Your task to perform on an android device: open app "Venmo" (install if not already installed), go to login, and select forgot password Image 0: 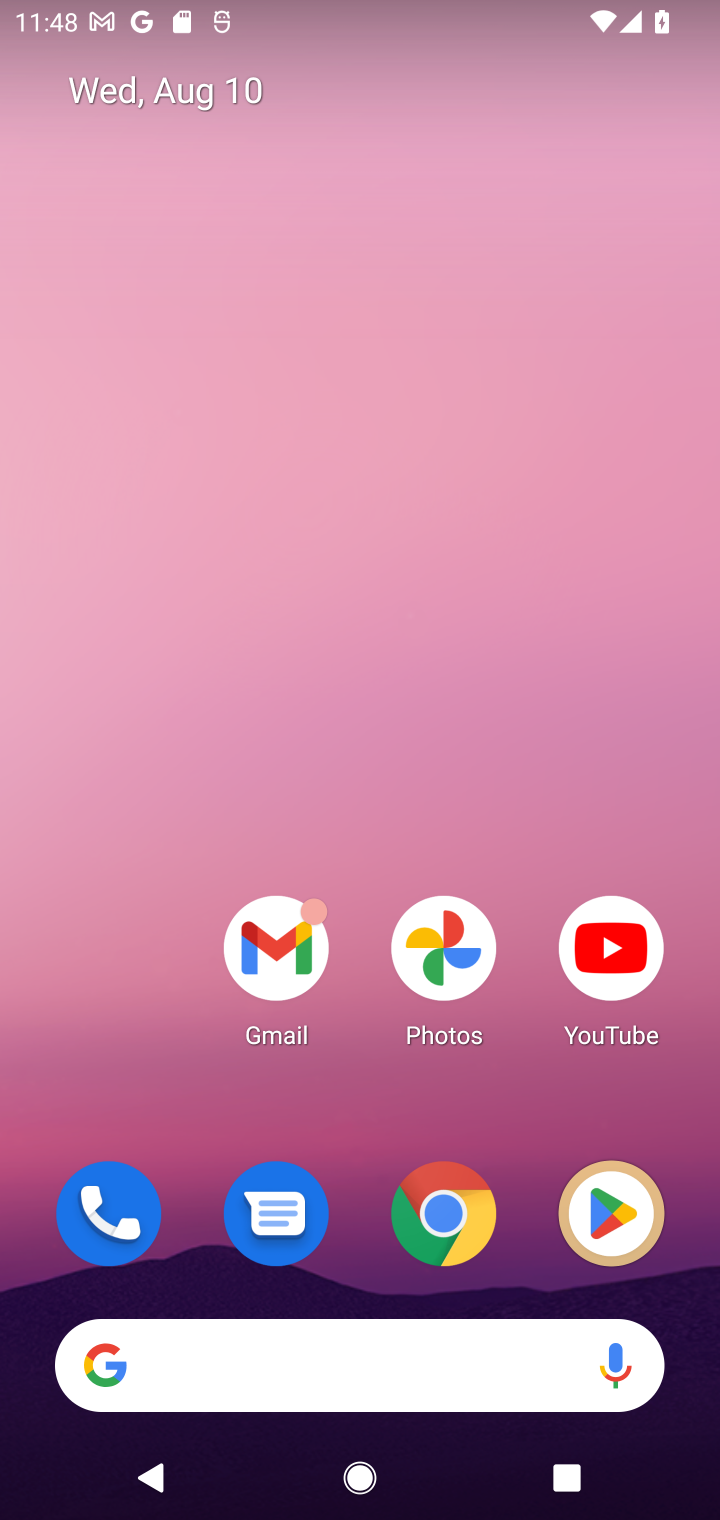
Step 0: drag from (248, 1395) to (536, 240)
Your task to perform on an android device: open app "Venmo" (install if not already installed), go to login, and select forgot password Image 1: 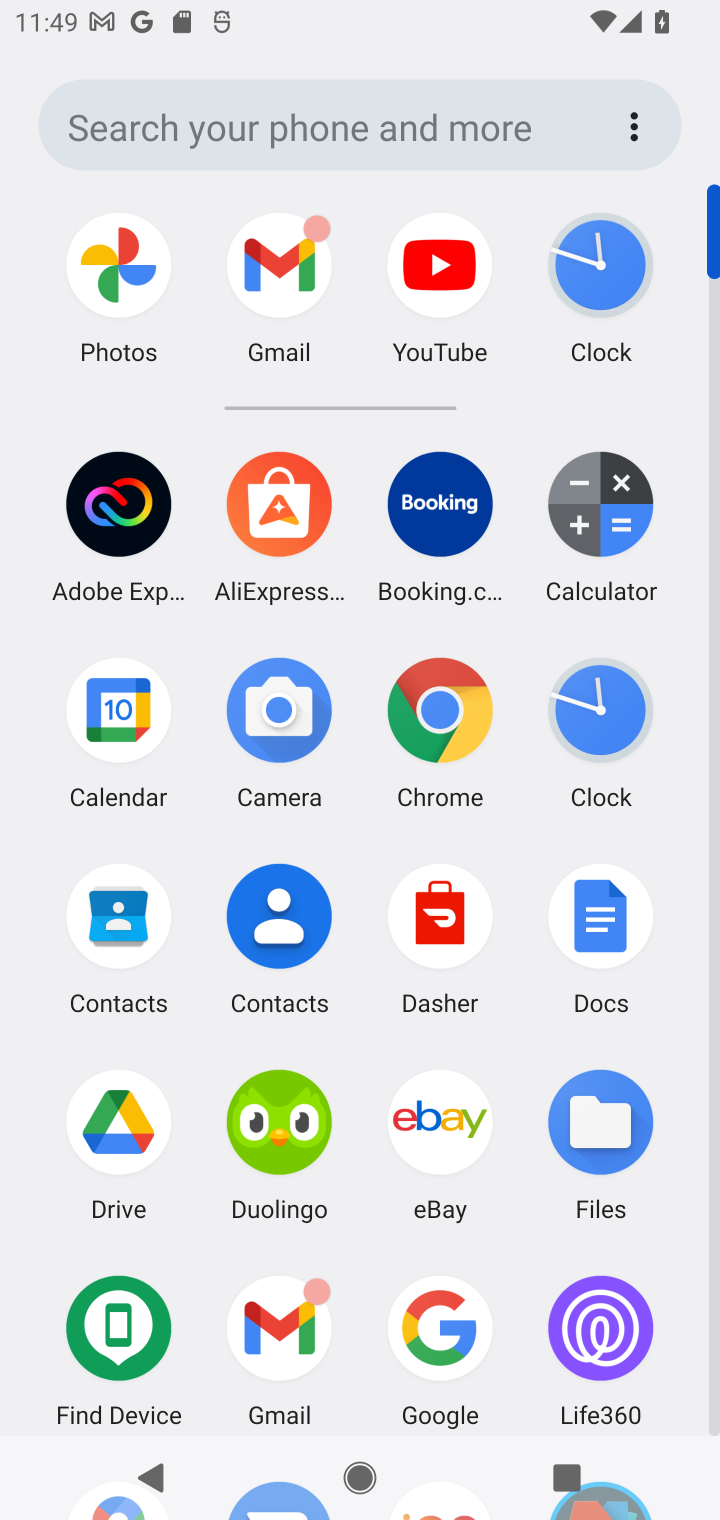
Step 1: drag from (364, 1180) to (394, 769)
Your task to perform on an android device: open app "Venmo" (install if not already installed), go to login, and select forgot password Image 2: 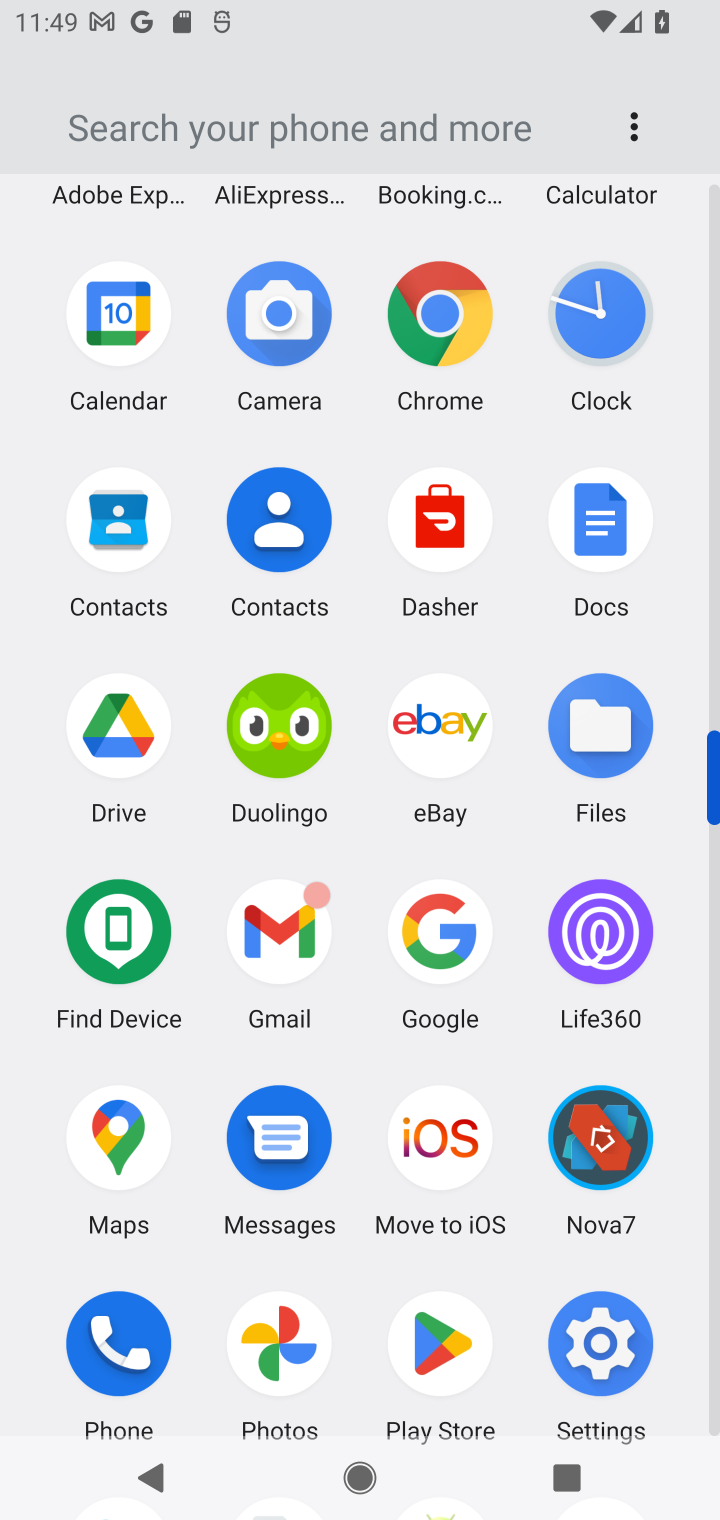
Step 2: click (439, 1341)
Your task to perform on an android device: open app "Venmo" (install if not already installed), go to login, and select forgot password Image 3: 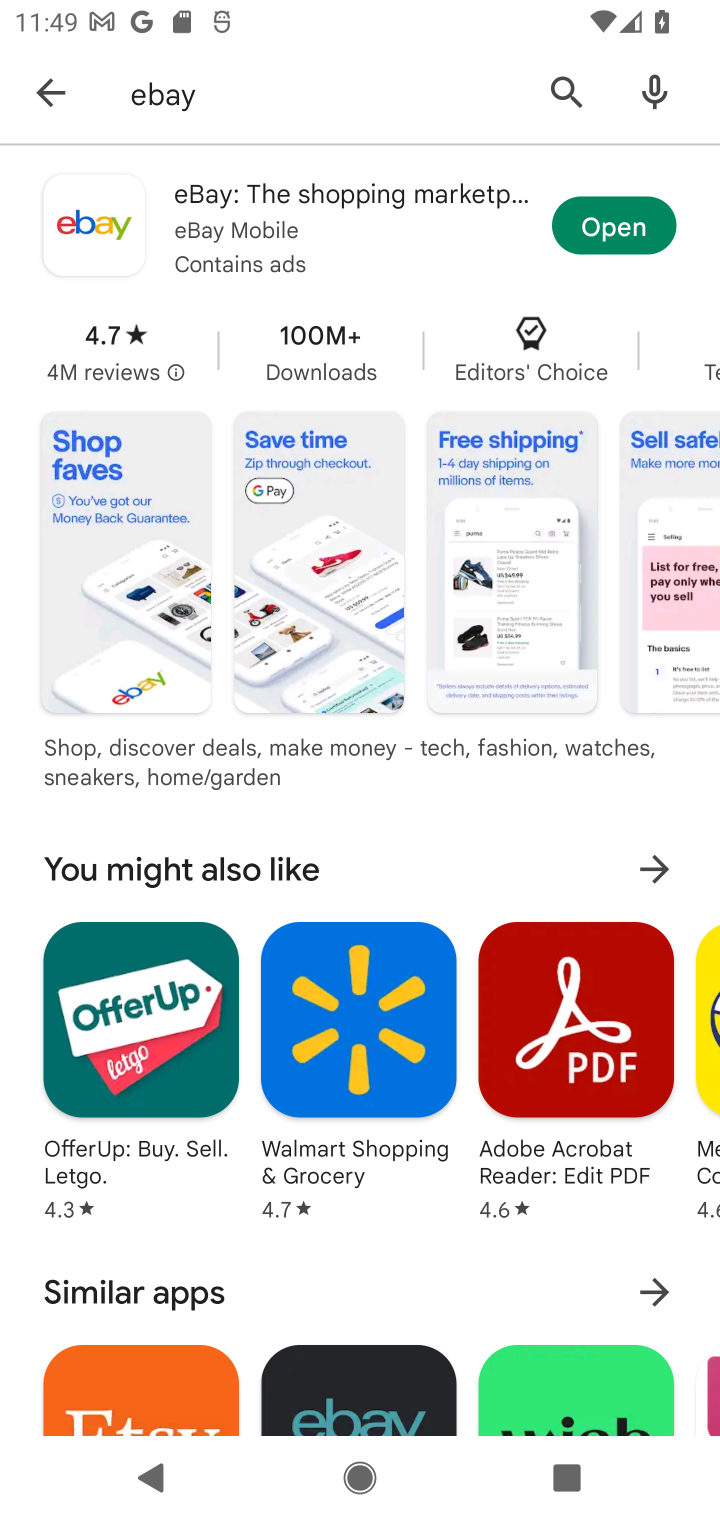
Step 3: press back button
Your task to perform on an android device: open app "Venmo" (install if not already installed), go to login, and select forgot password Image 4: 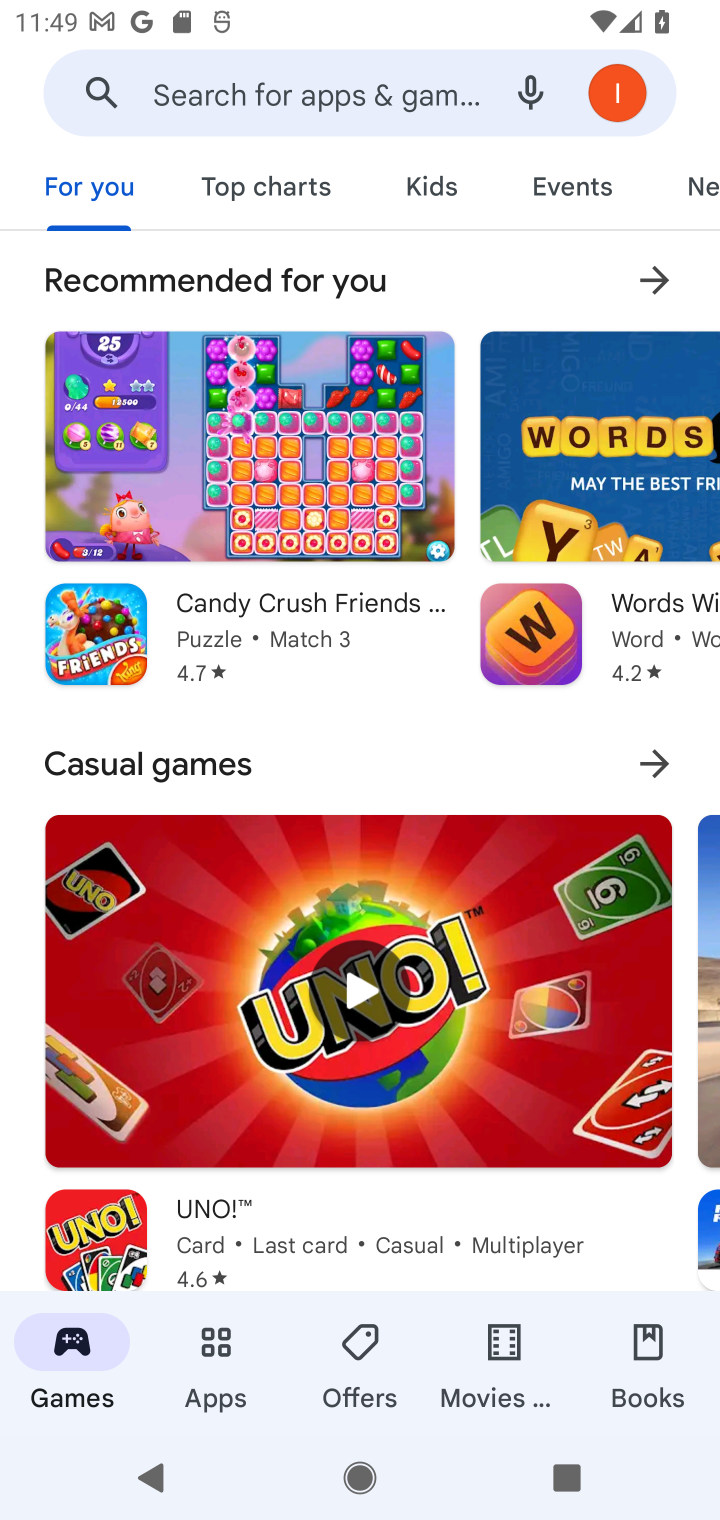
Step 4: click (411, 90)
Your task to perform on an android device: open app "Venmo" (install if not already installed), go to login, and select forgot password Image 5: 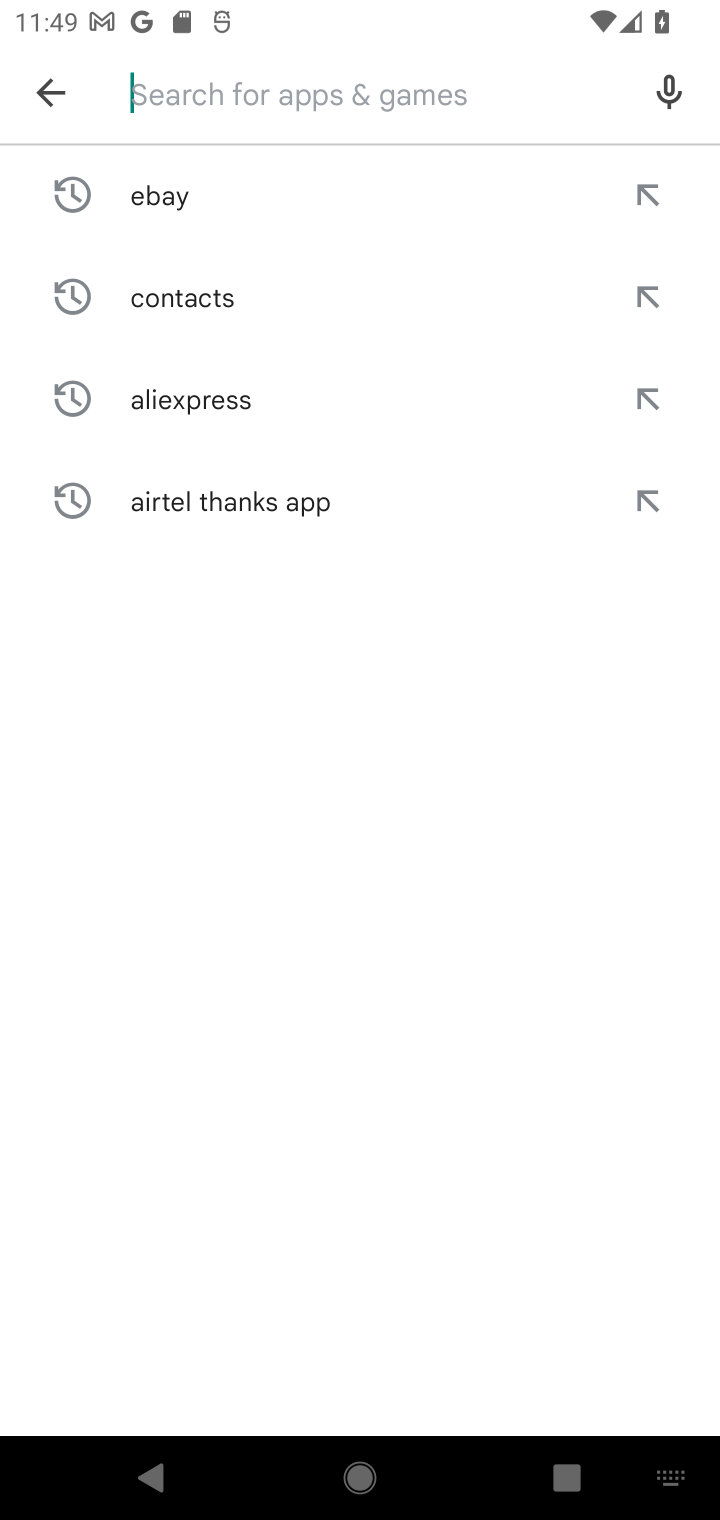
Step 5: type "Venmo"
Your task to perform on an android device: open app "Venmo" (install if not already installed), go to login, and select forgot password Image 6: 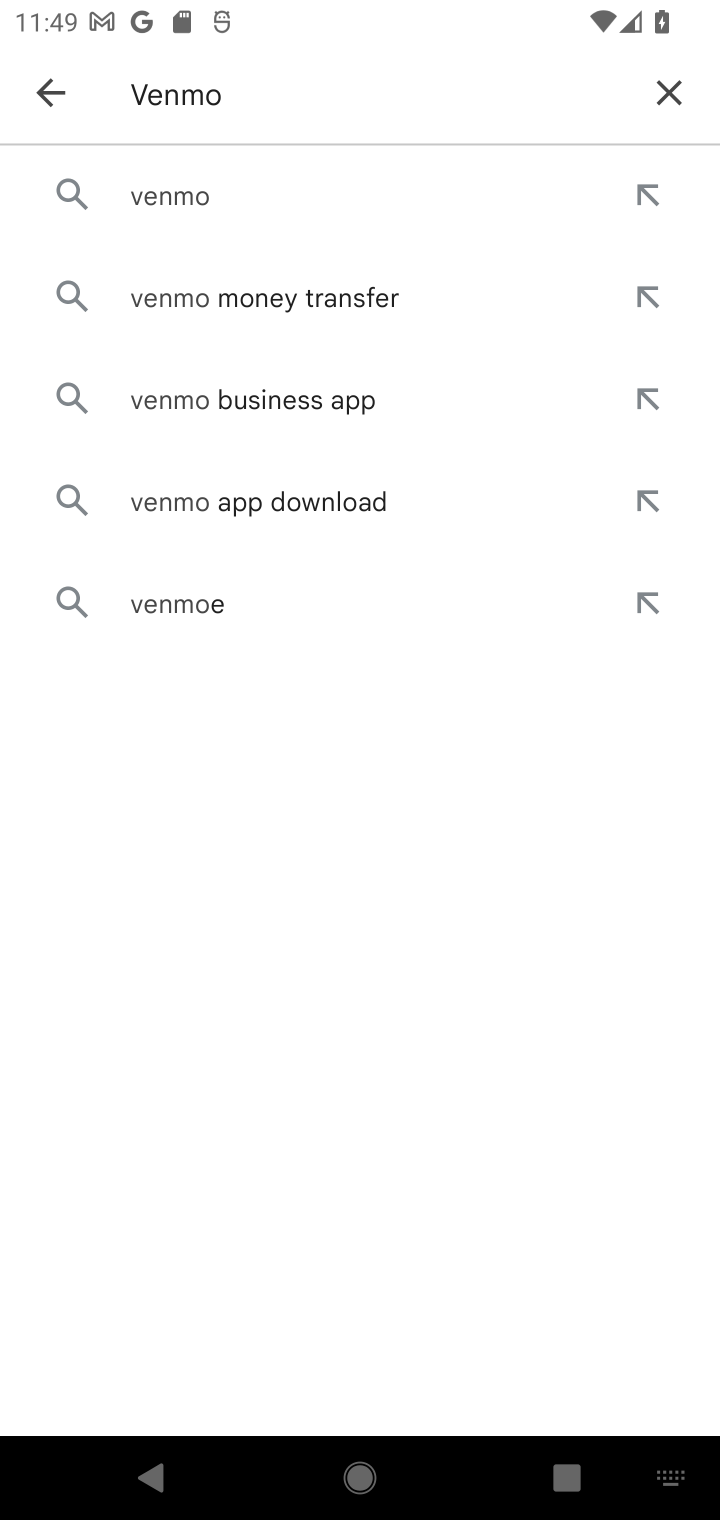
Step 6: click (194, 192)
Your task to perform on an android device: open app "Venmo" (install if not already installed), go to login, and select forgot password Image 7: 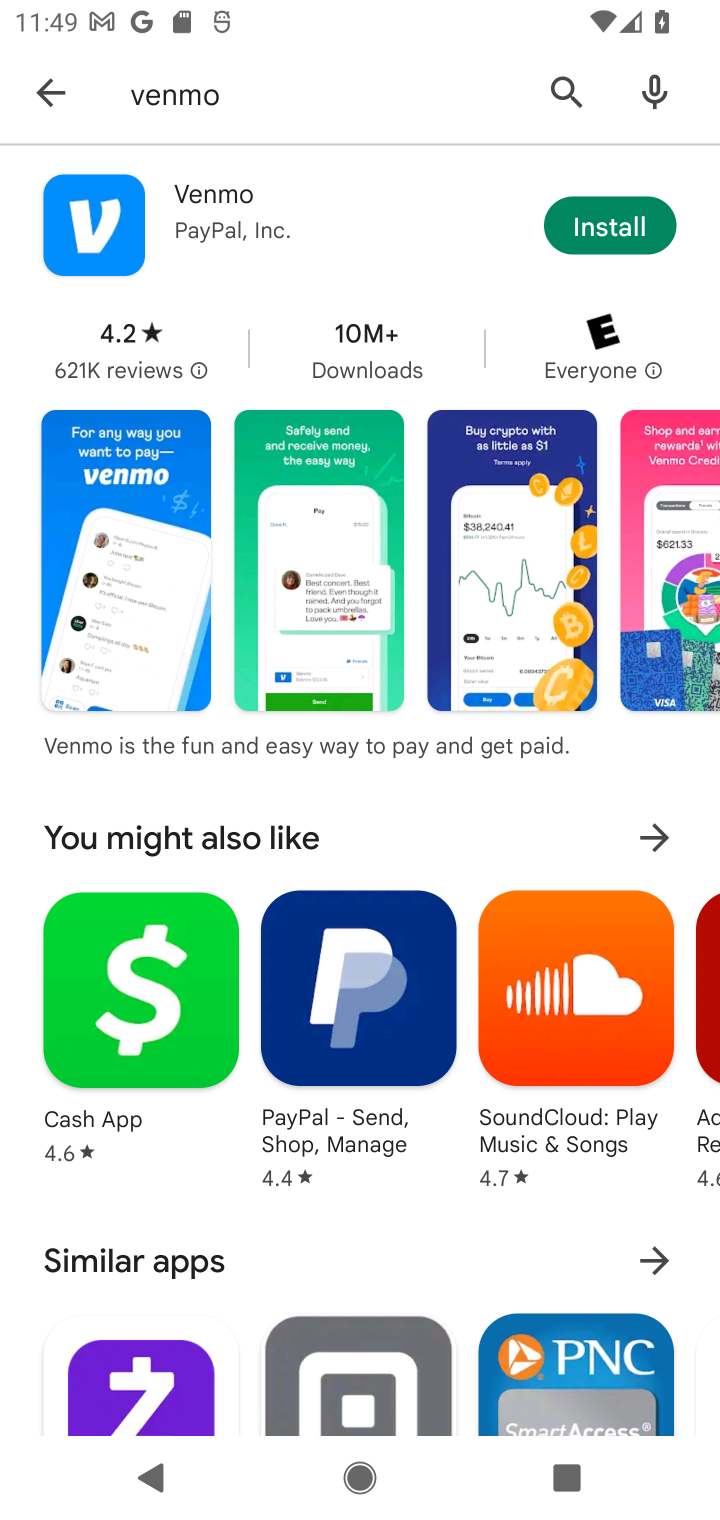
Step 7: click (613, 220)
Your task to perform on an android device: open app "Venmo" (install if not already installed), go to login, and select forgot password Image 8: 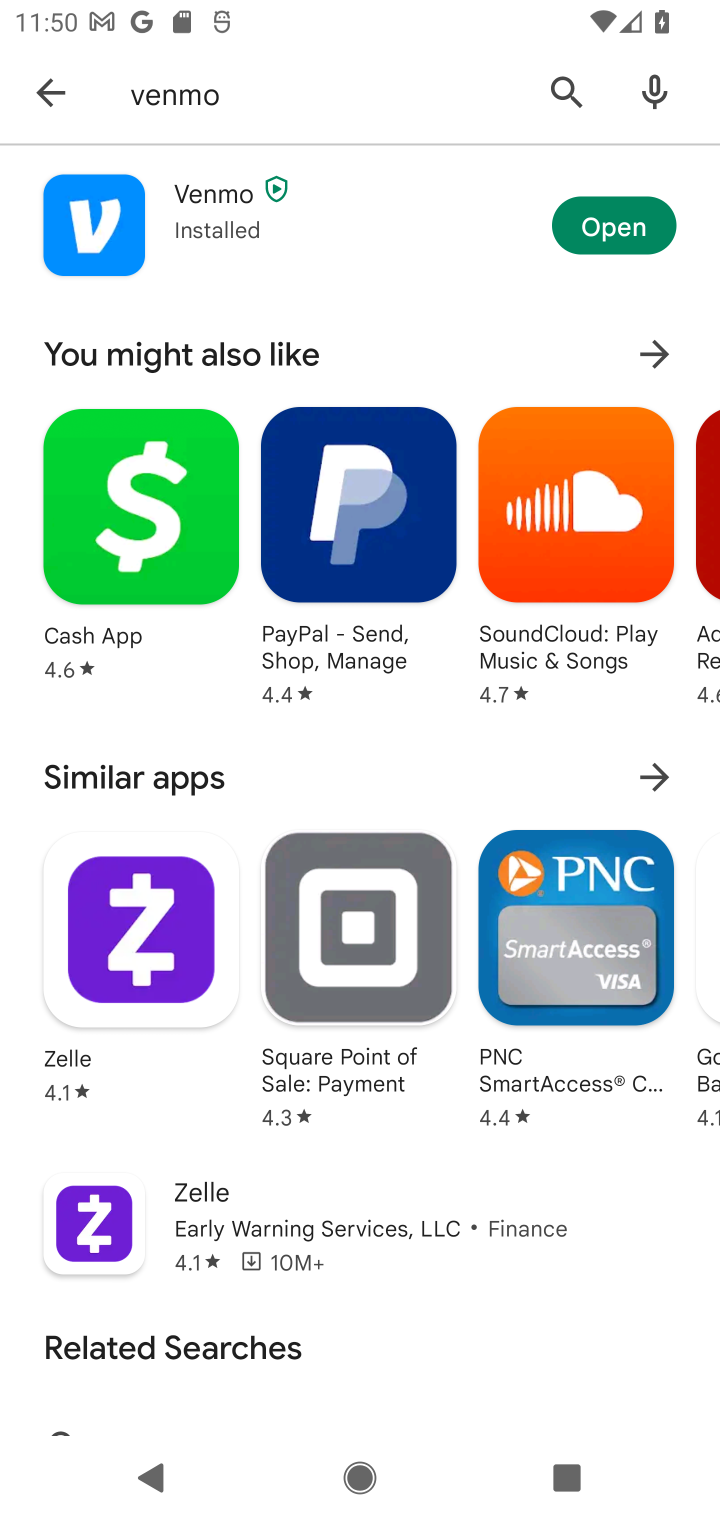
Step 8: click (607, 227)
Your task to perform on an android device: open app "Venmo" (install if not already installed), go to login, and select forgot password Image 9: 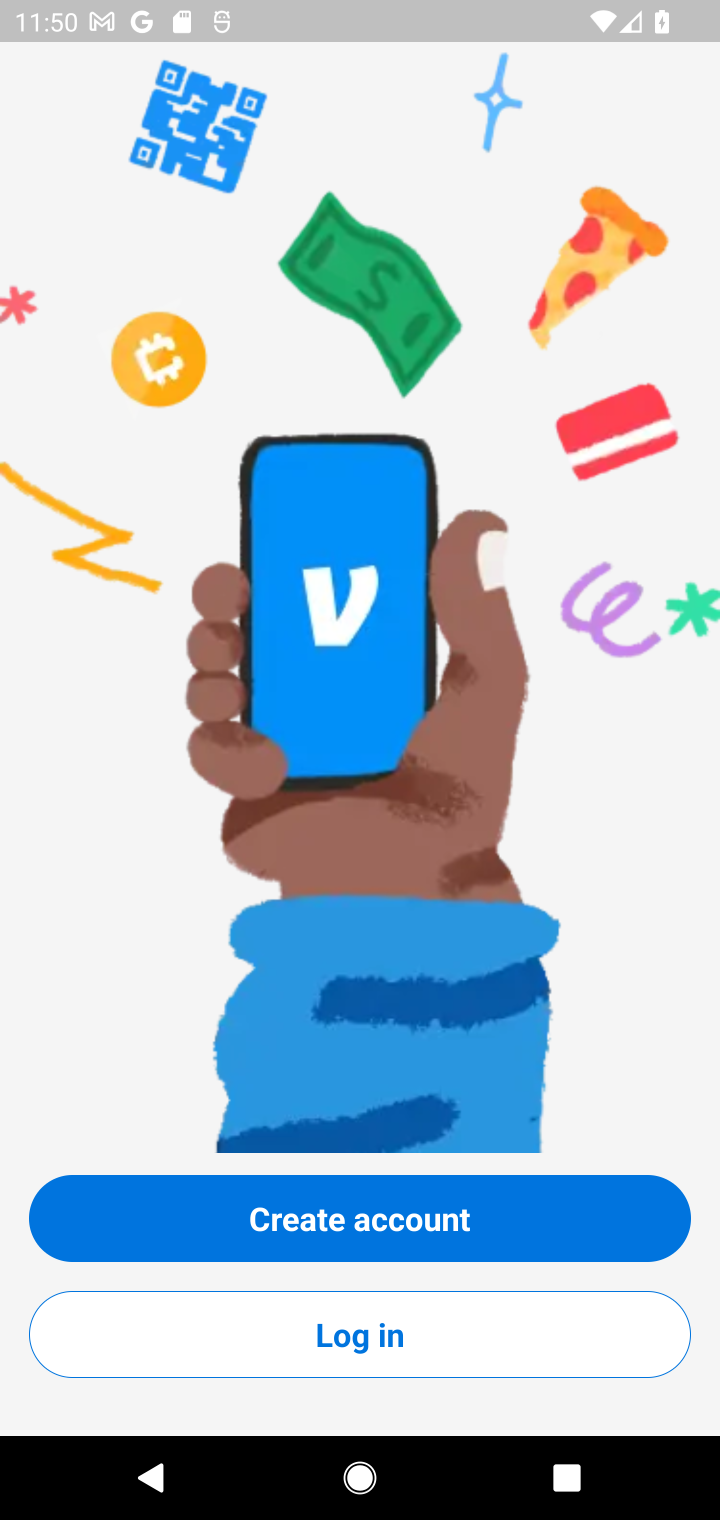
Step 9: click (364, 1308)
Your task to perform on an android device: open app "Venmo" (install if not already installed), go to login, and select forgot password Image 10: 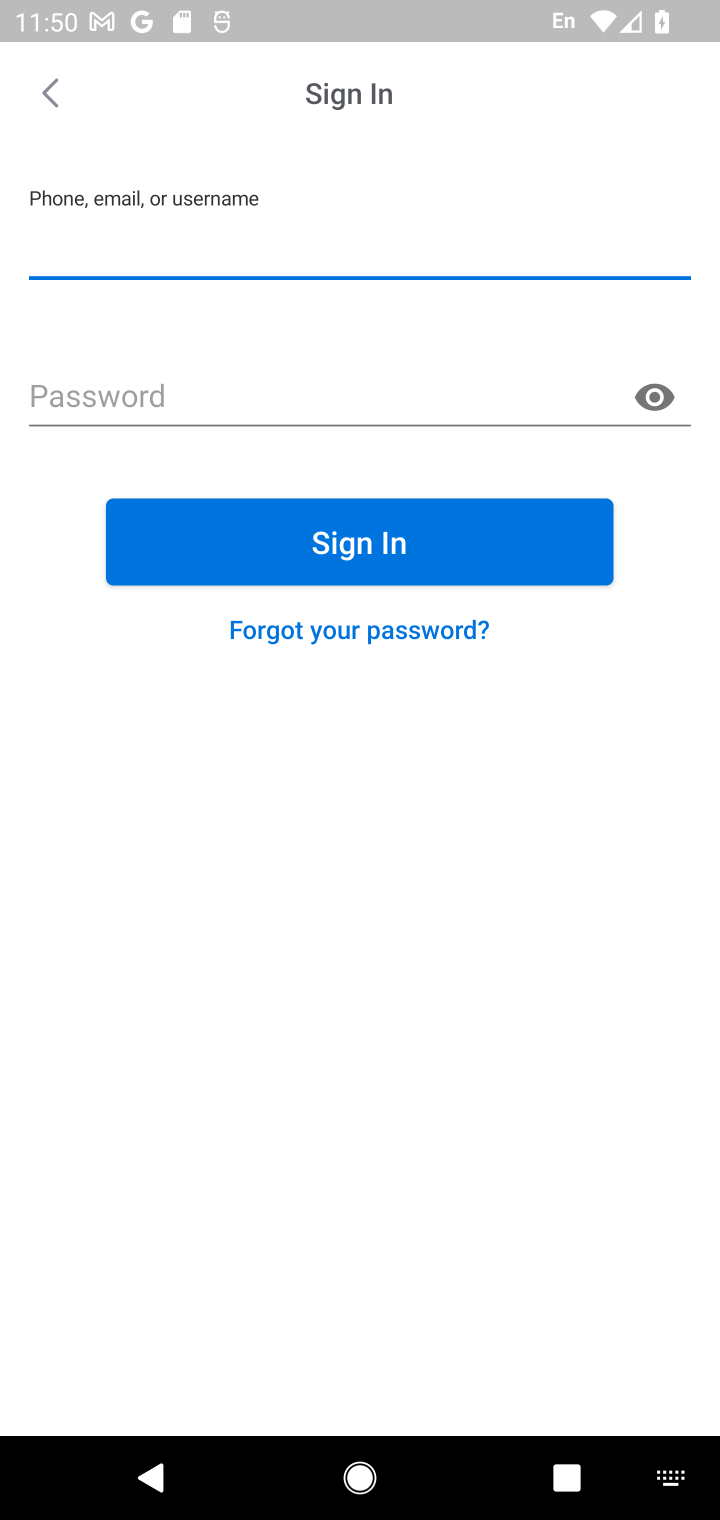
Step 10: click (374, 620)
Your task to perform on an android device: open app "Venmo" (install if not already installed), go to login, and select forgot password Image 11: 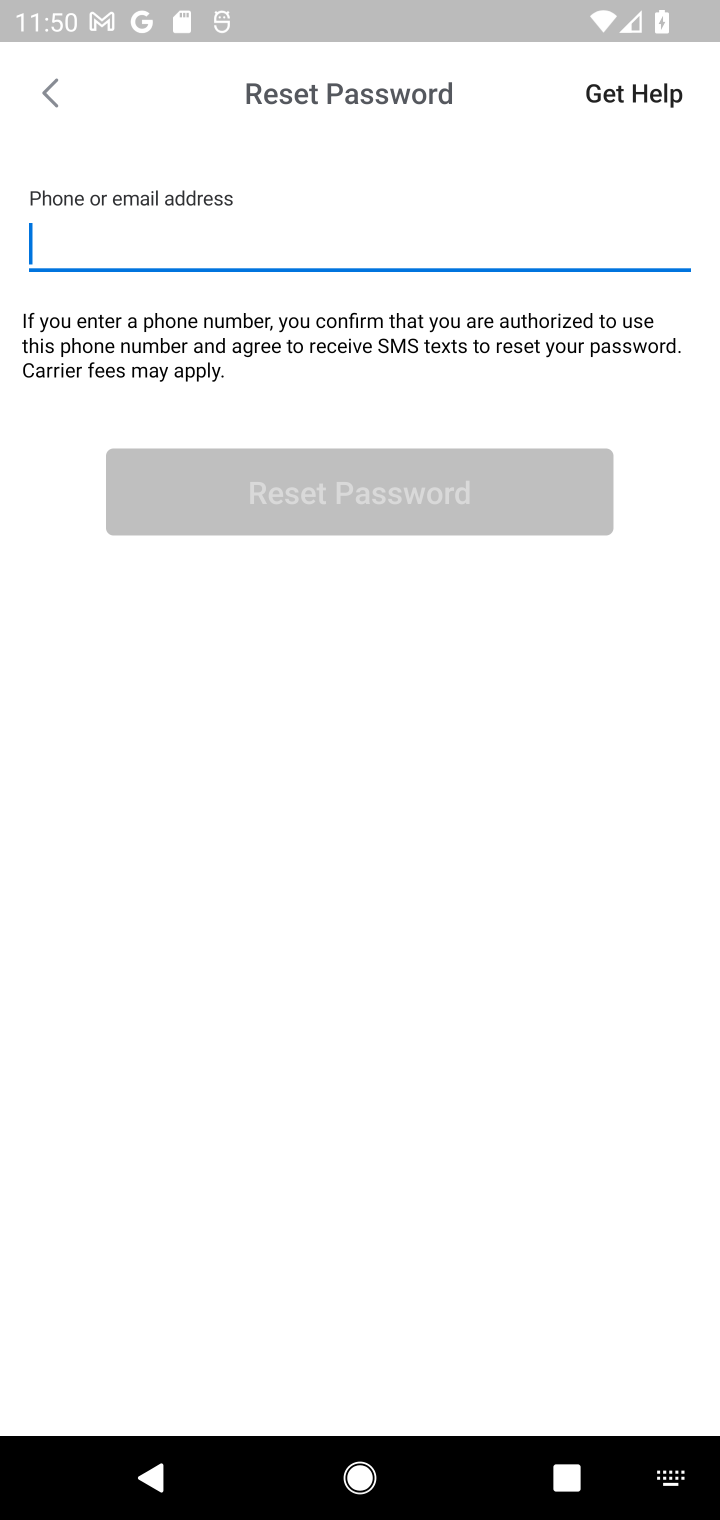
Step 11: task complete